Your task to perform on an android device: create a new album in the google photos Image 0: 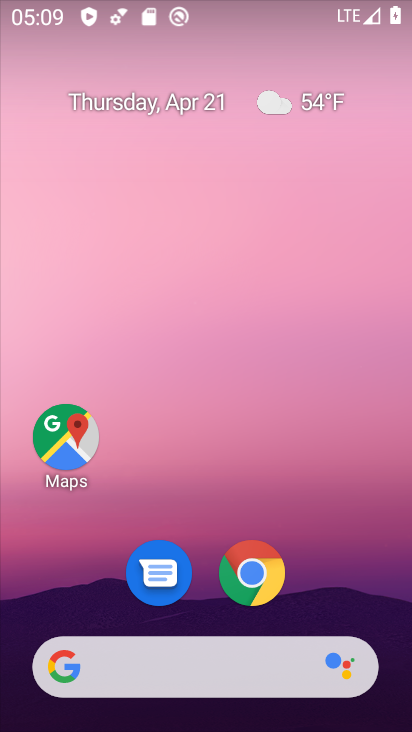
Step 0: drag from (395, 654) to (360, 269)
Your task to perform on an android device: create a new album in the google photos Image 1: 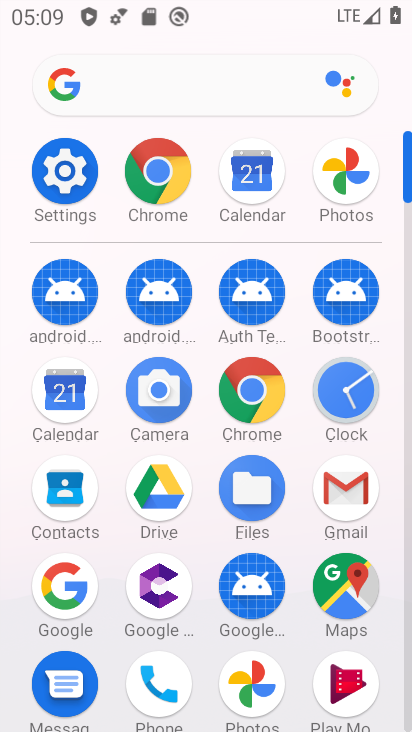
Step 1: click (408, 695)
Your task to perform on an android device: create a new album in the google photos Image 2: 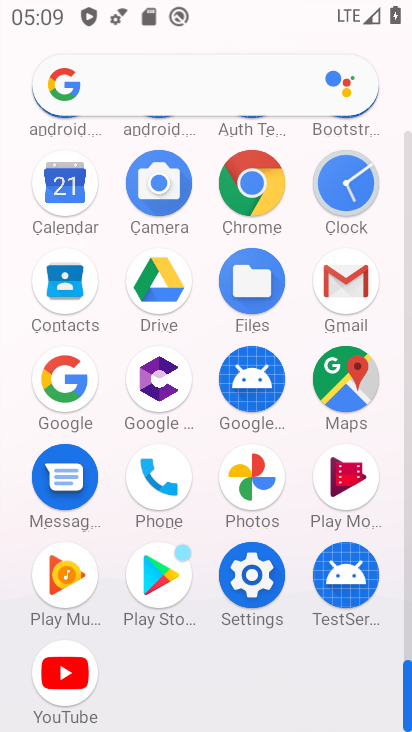
Step 2: click (253, 475)
Your task to perform on an android device: create a new album in the google photos Image 3: 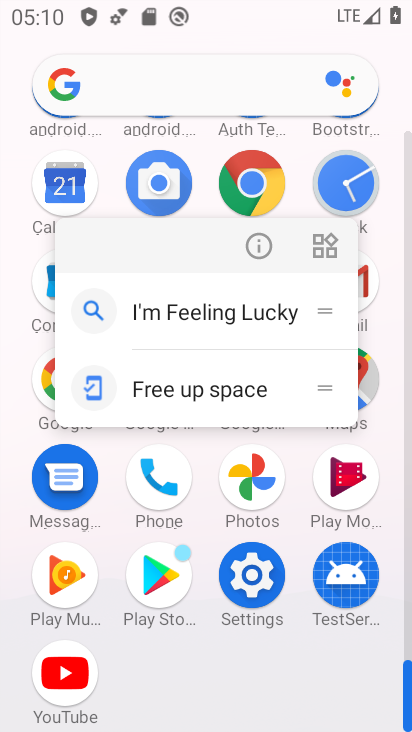
Step 3: click (253, 475)
Your task to perform on an android device: create a new album in the google photos Image 4: 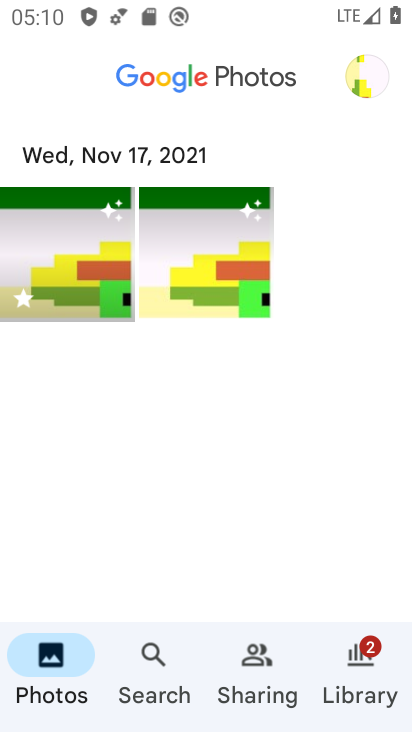
Step 4: click (354, 655)
Your task to perform on an android device: create a new album in the google photos Image 5: 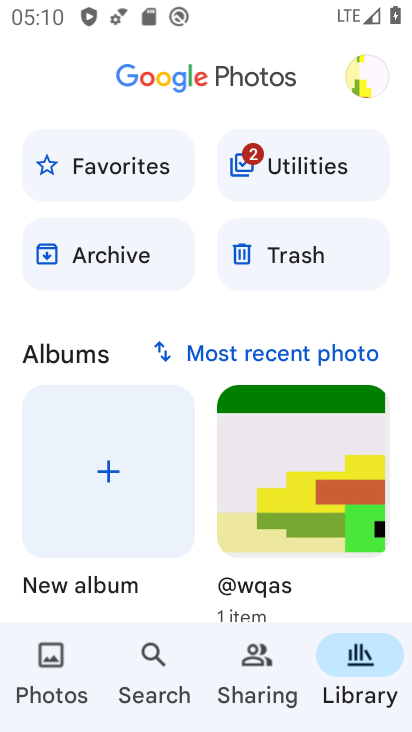
Step 5: click (104, 468)
Your task to perform on an android device: create a new album in the google photos Image 6: 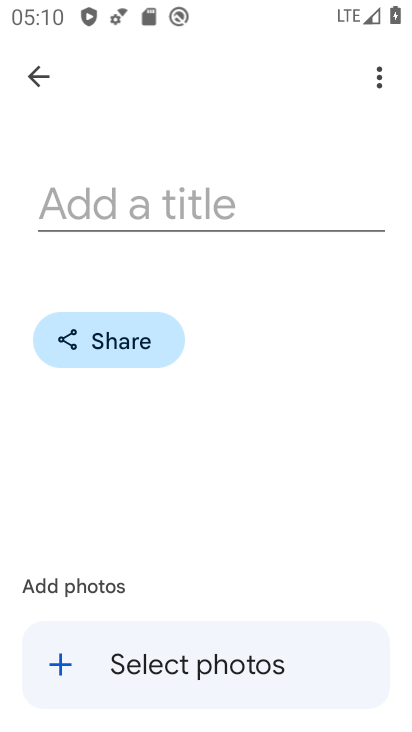
Step 6: click (111, 198)
Your task to perform on an android device: create a new album in the google photos Image 7: 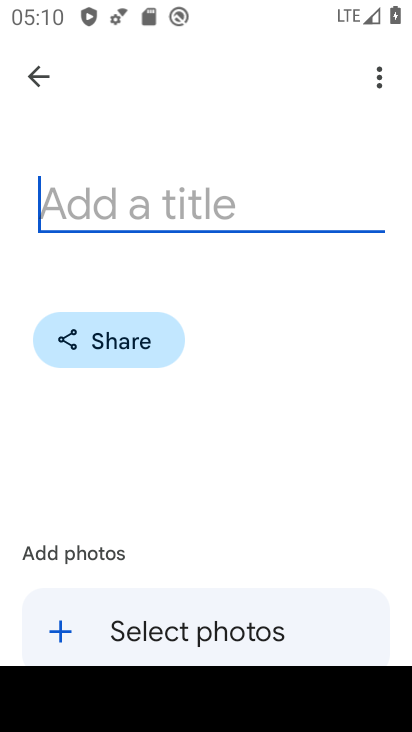
Step 7: type "asghjkliop"
Your task to perform on an android device: create a new album in the google photos Image 8: 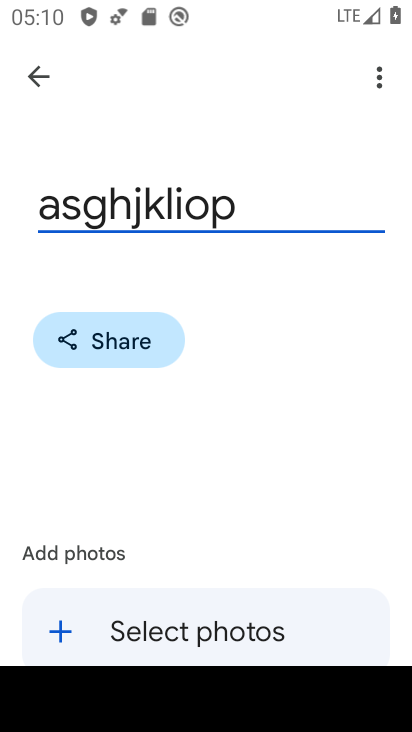
Step 8: click (56, 626)
Your task to perform on an android device: create a new album in the google photos Image 9: 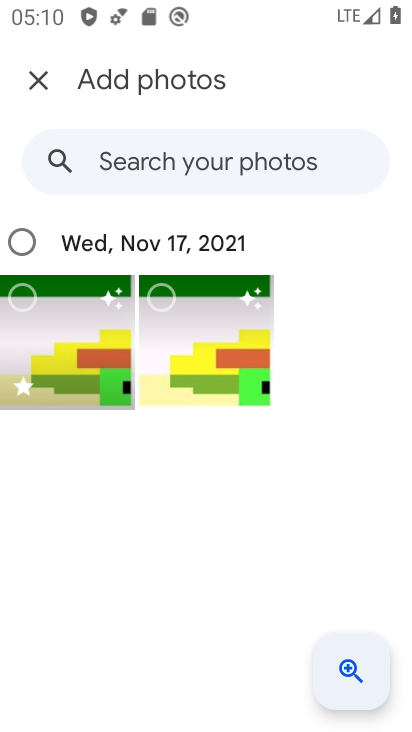
Step 9: click (16, 297)
Your task to perform on an android device: create a new album in the google photos Image 10: 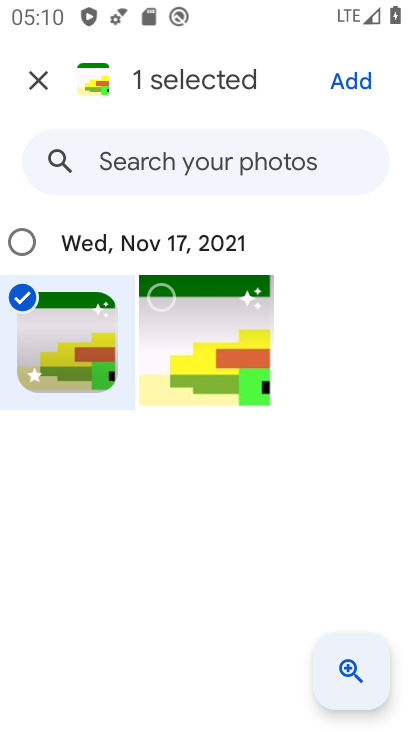
Step 10: click (165, 293)
Your task to perform on an android device: create a new album in the google photos Image 11: 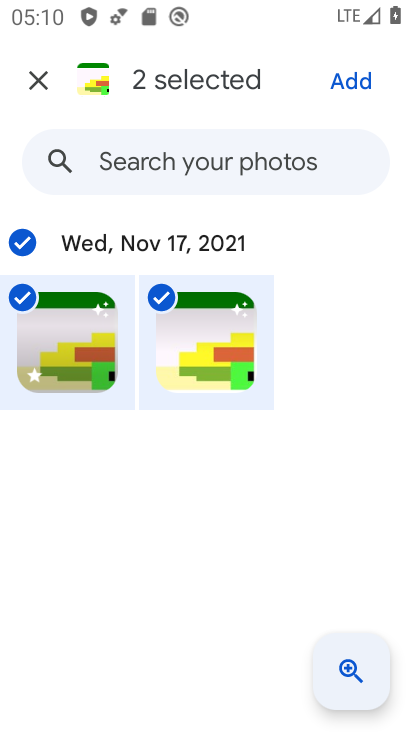
Step 11: click (349, 80)
Your task to perform on an android device: create a new album in the google photos Image 12: 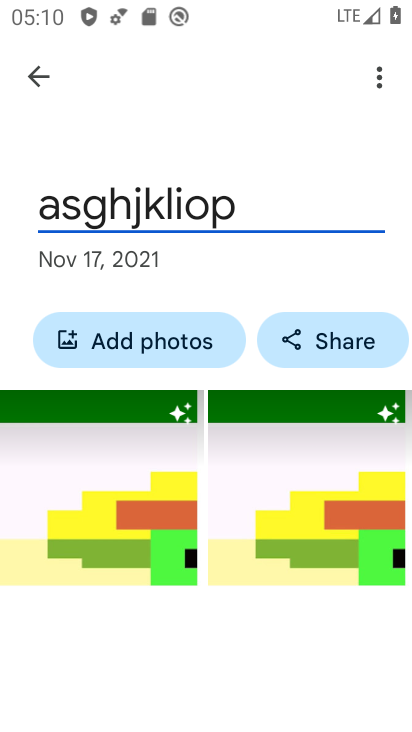
Step 12: task complete